Your task to perform on an android device: open wifi settings Image 0: 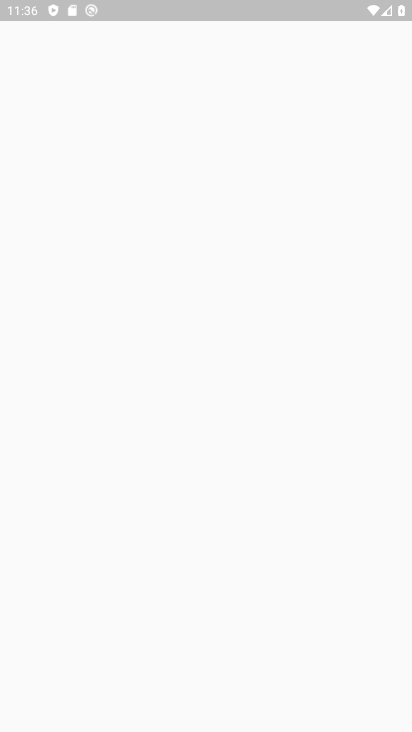
Step 0: press home button
Your task to perform on an android device: open wifi settings Image 1: 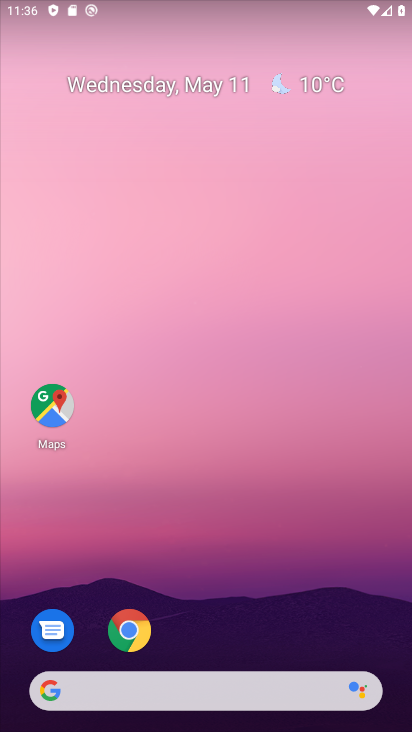
Step 1: drag from (176, 647) to (247, 166)
Your task to perform on an android device: open wifi settings Image 2: 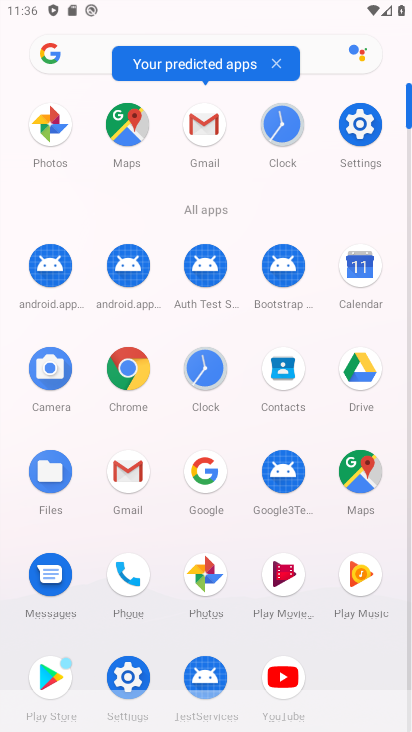
Step 2: drag from (179, 592) to (212, 415)
Your task to perform on an android device: open wifi settings Image 3: 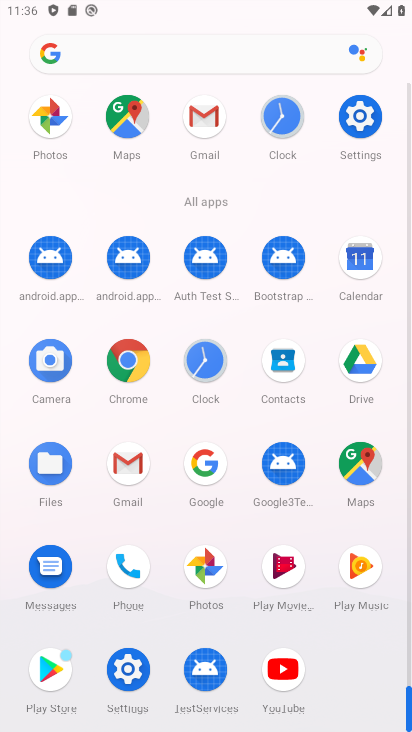
Step 3: click (131, 678)
Your task to perform on an android device: open wifi settings Image 4: 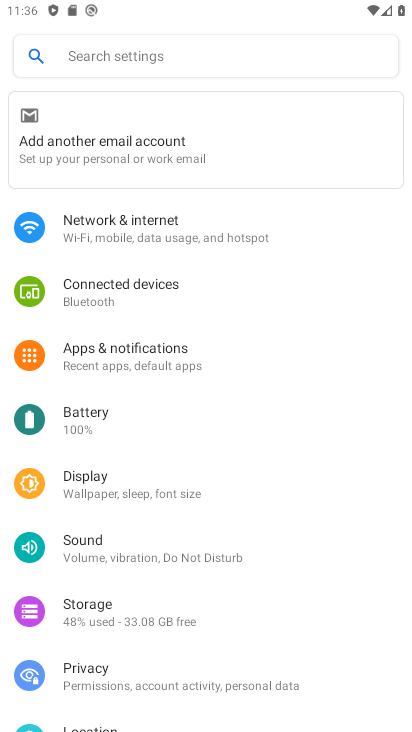
Step 4: click (156, 226)
Your task to perform on an android device: open wifi settings Image 5: 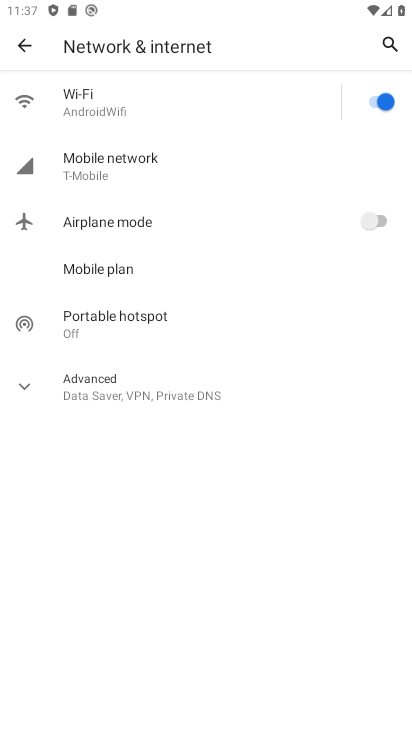
Step 5: click (174, 101)
Your task to perform on an android device: open wifi settings Image 6: 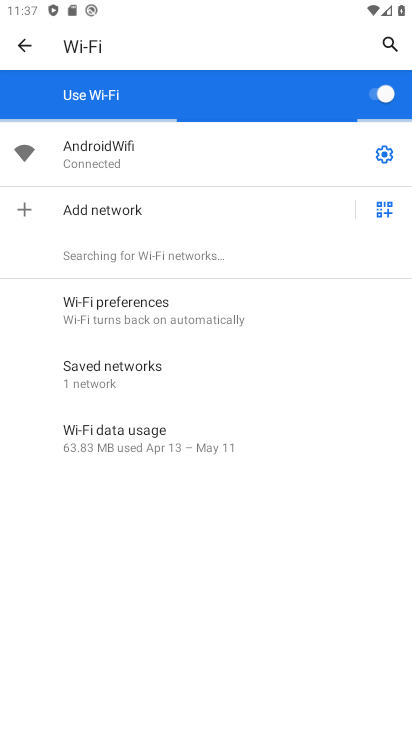
Step 6: task complete